Your task to perform on an android device: turn off smart reply in the gmail app Image 0: 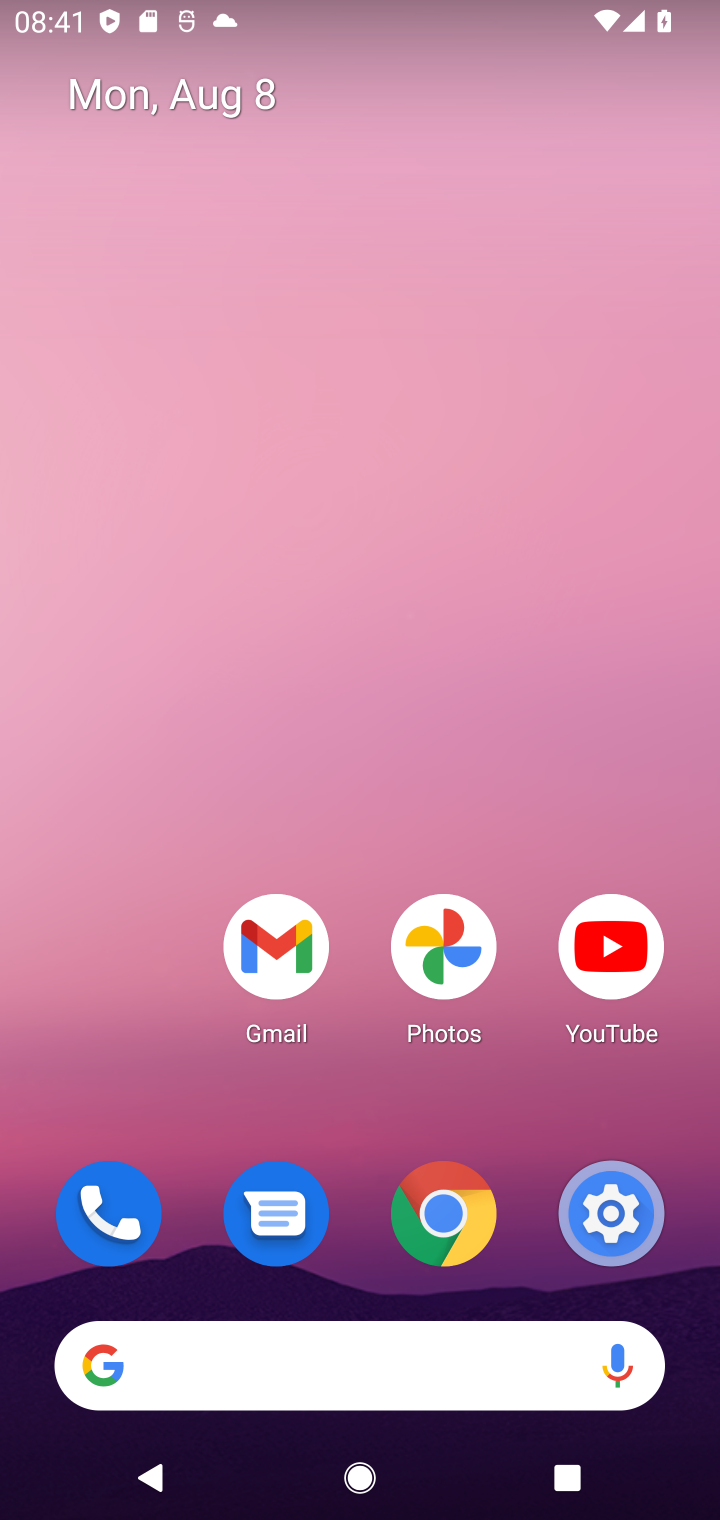
Step 0: drag from (369, 398) to (149, 200)
Your task to perform on an android device: turn off smart reply in the gmail app Image 1: 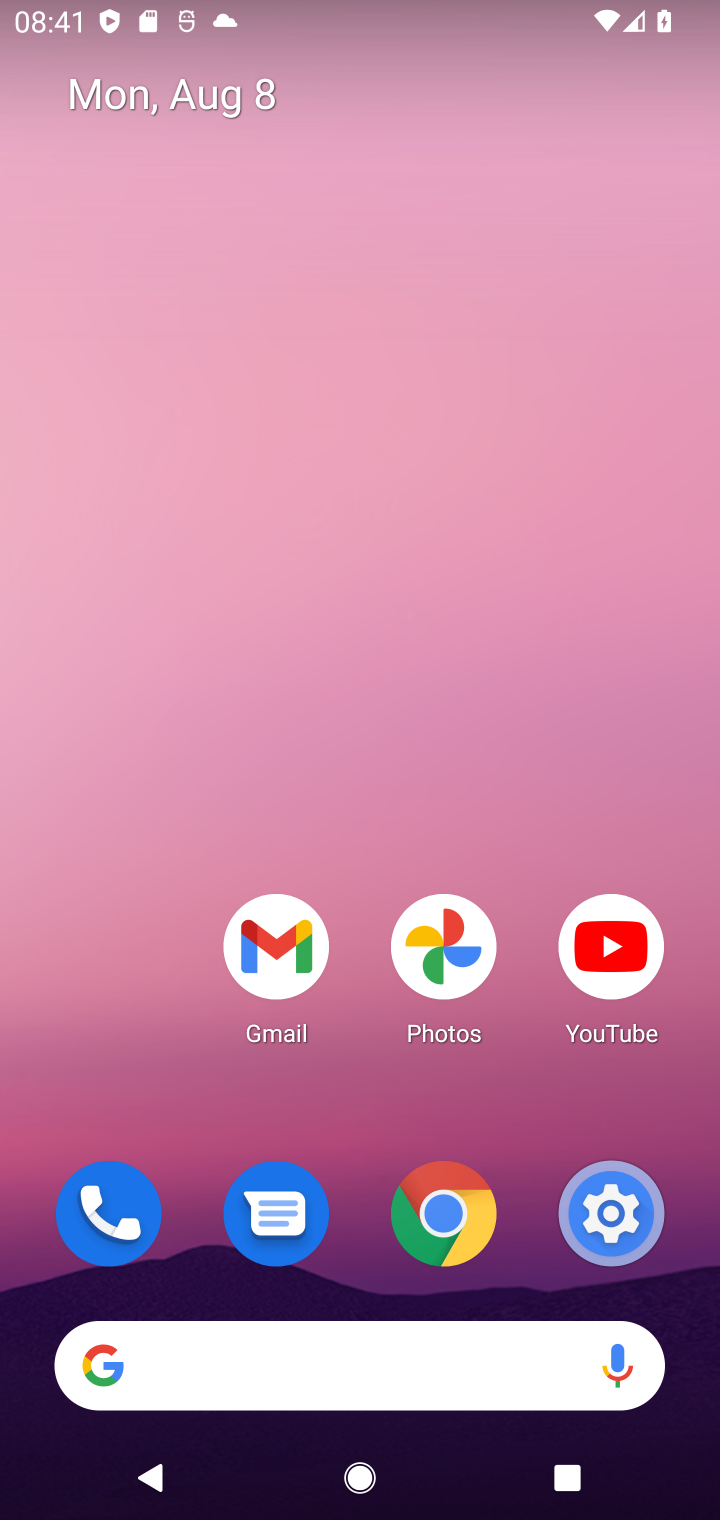
Step 1: drag from (390, 1116) to (361, 207)
Your task to perform on an android device: turn off smart reply in the gmail app Image 2: 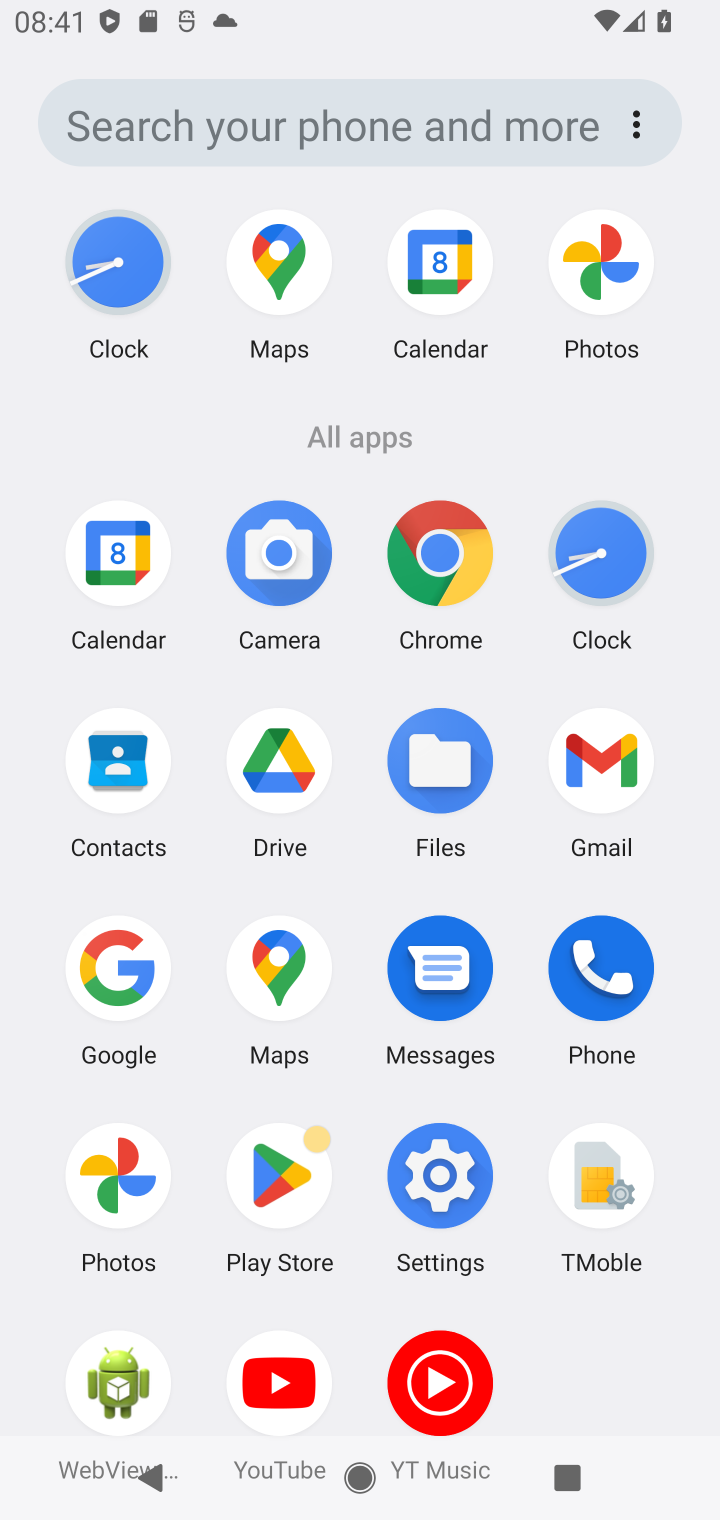
Step 2: click (586, 783)
Your task to perform on an android device: turn off smart reply in the gmail app Image 3: 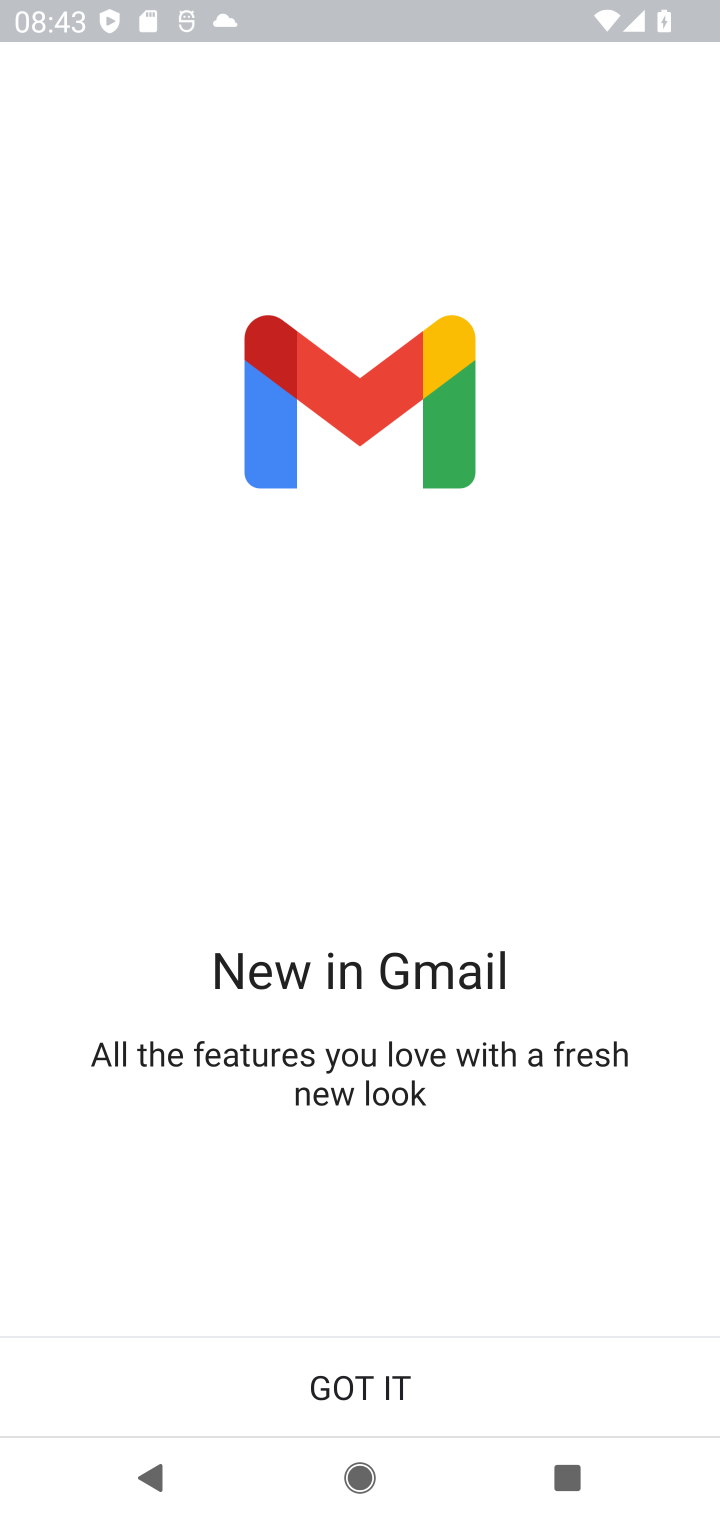
Step 3: click (401, 1418)
Your task to perform on an android device: turn off smart reply in the gmail app Image 4: 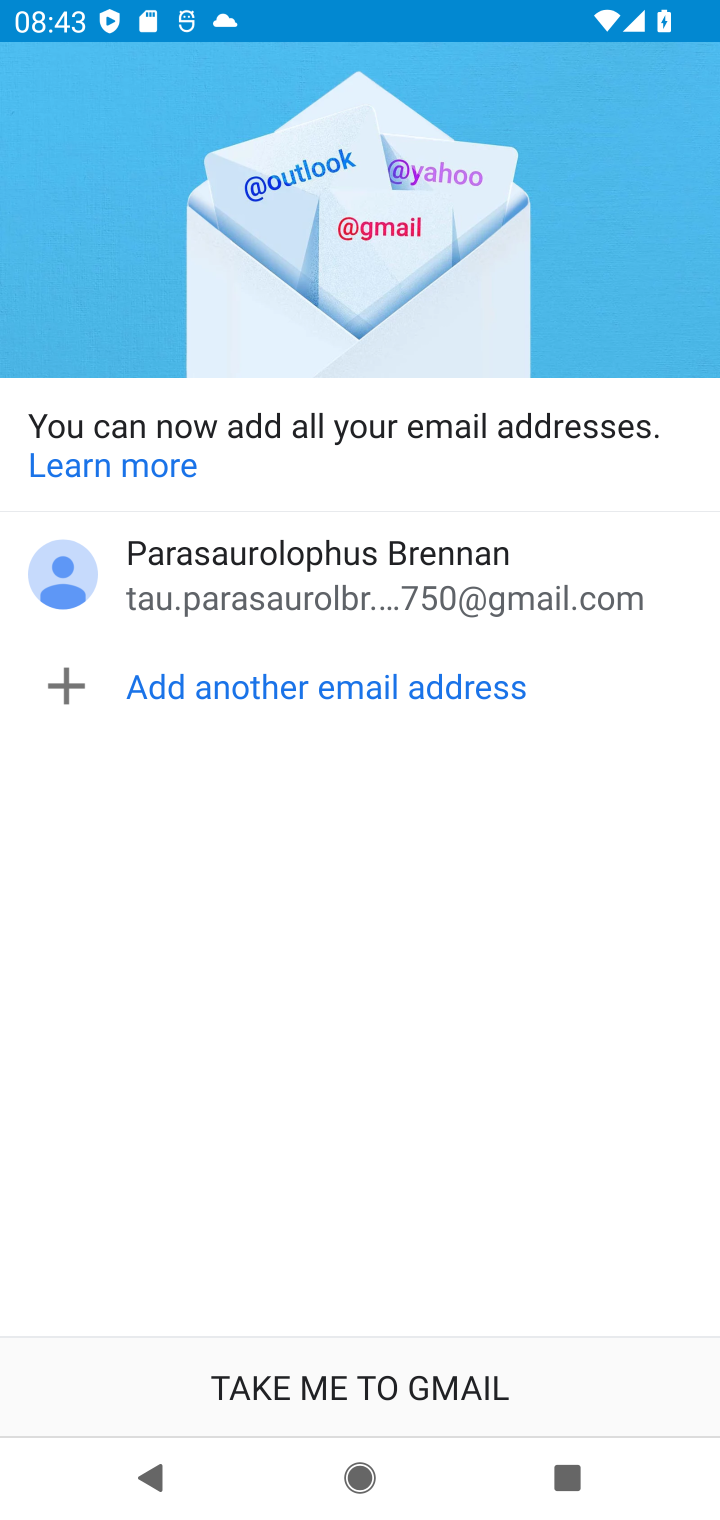
Step 4: click (434, 1380)
Your task to perform on an android device: turn off smart reply in the gmail app Image 5: 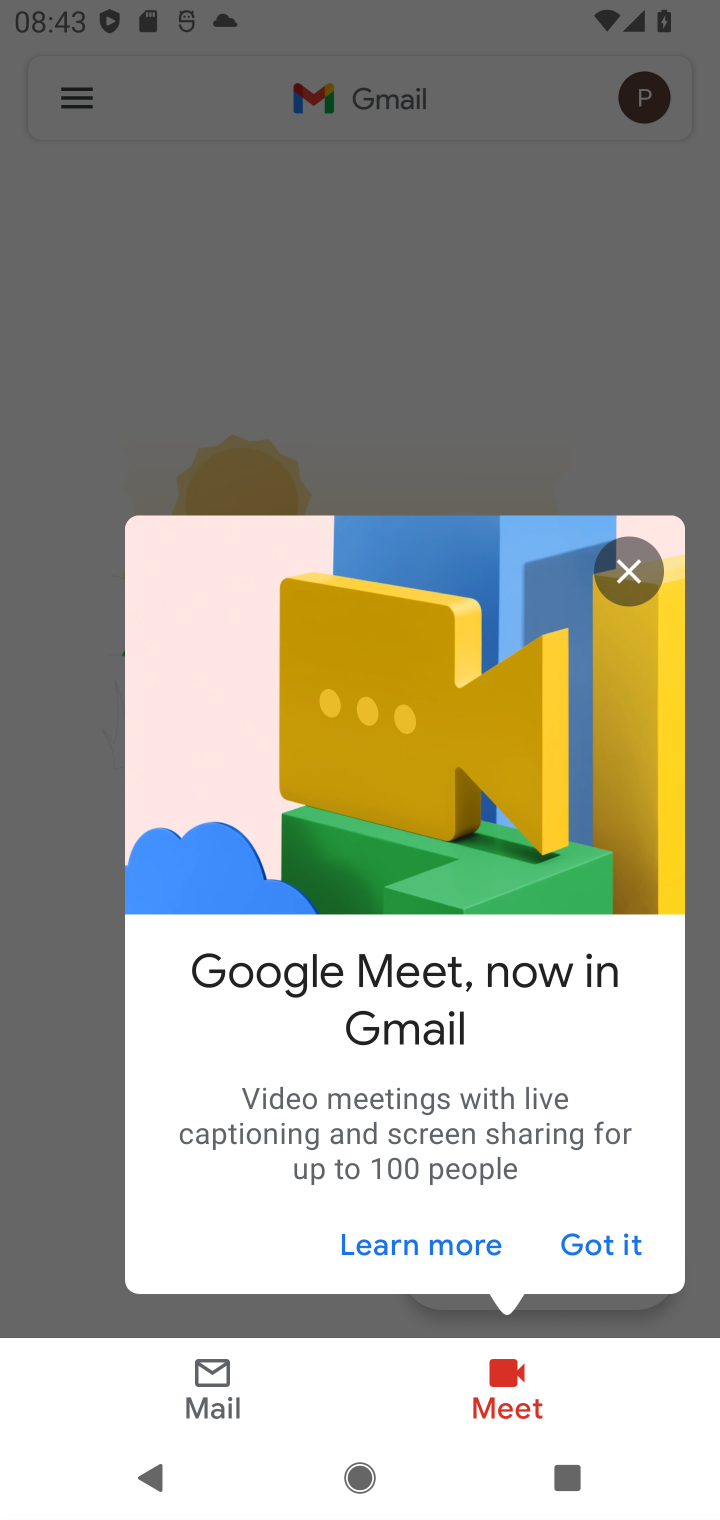
Step 5: click (583, 1243)
Your task to perform on an android device: turn off smart reply in the gmail app Image 6: 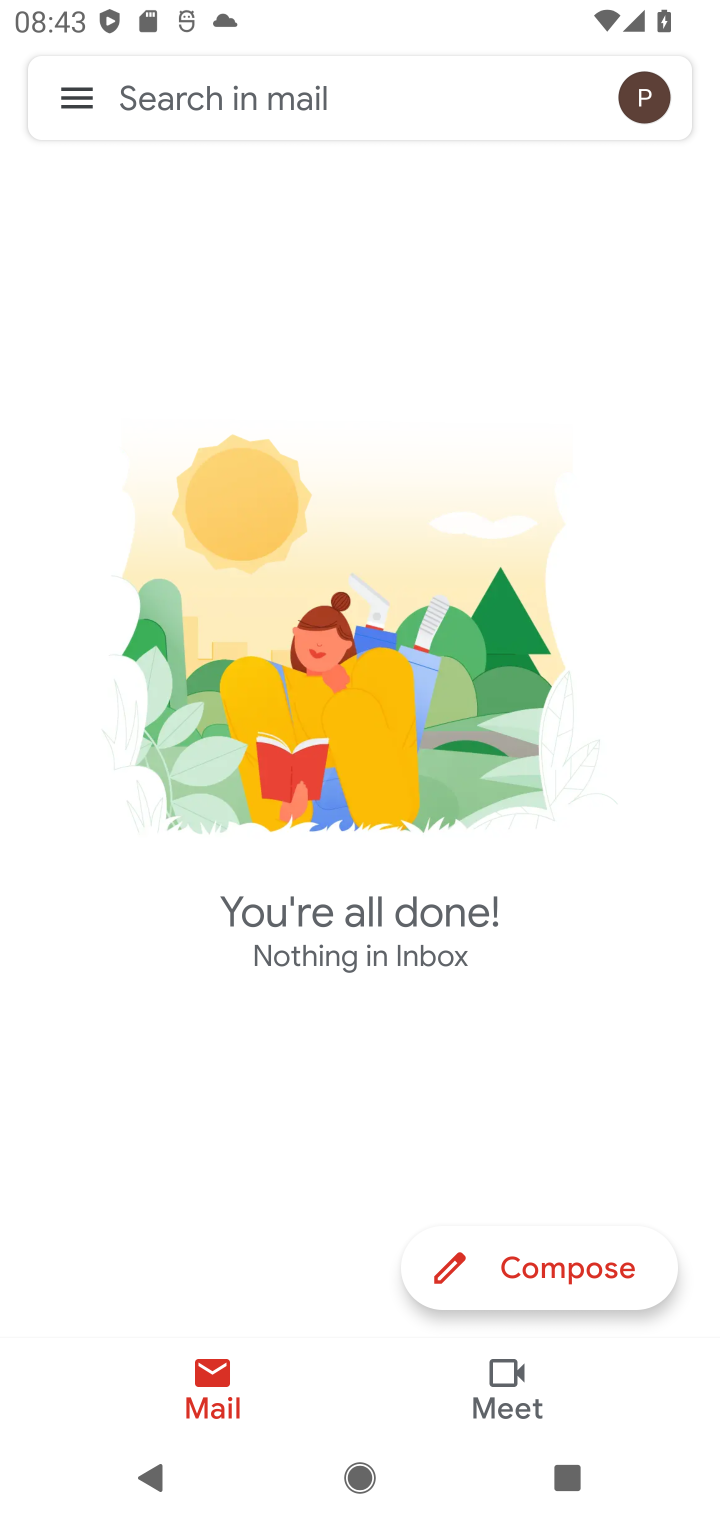
Step 6: click (61, 125)
Your task to perform on an android device: turn off smart reply in the gmail app Image 7: 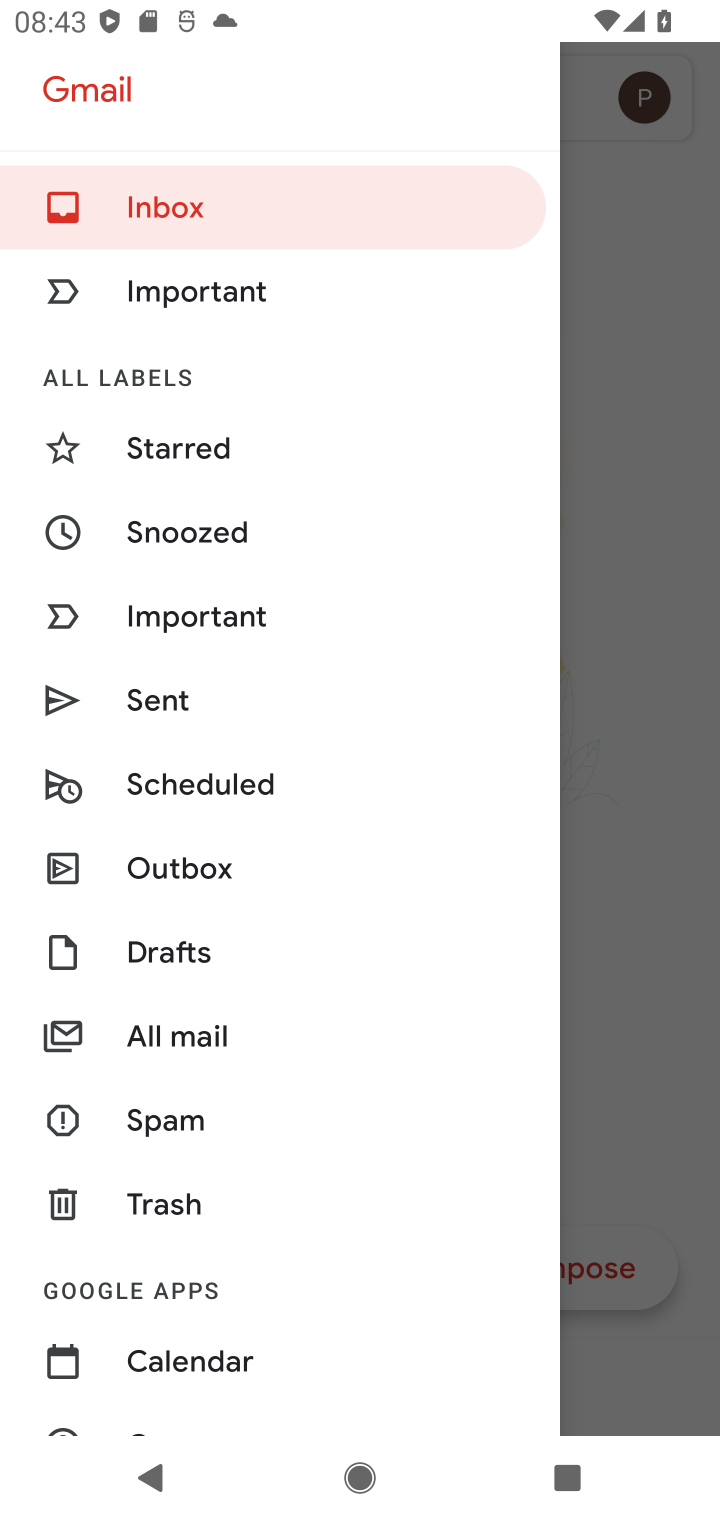
Step 7: drag from (226, 1276) to (256, 357)
Your task to perform on an android device: turn off smart reply in the gmail app Image 8: 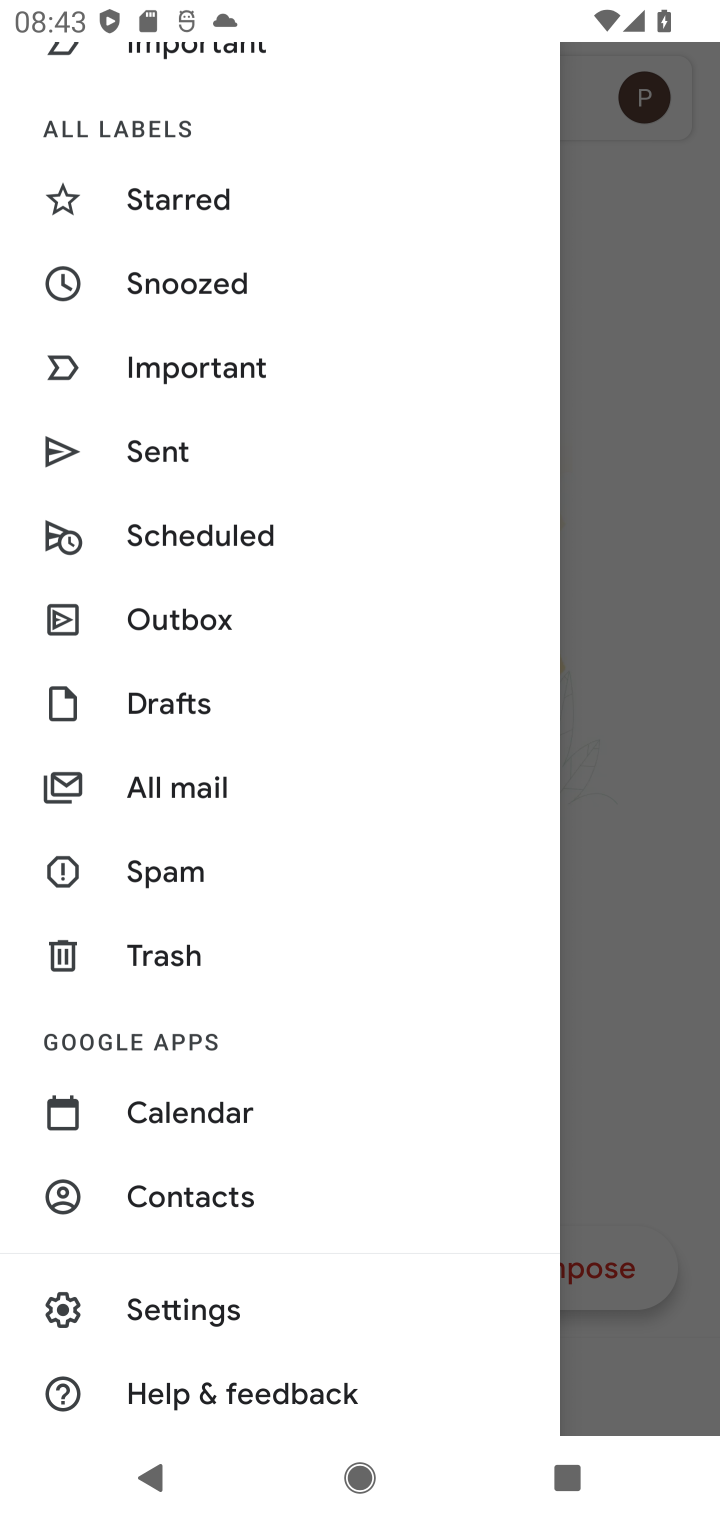
Step 8: click (219, 1308)
Your task to perform on an android device: turn off smart reply in the gmail app Image 9: 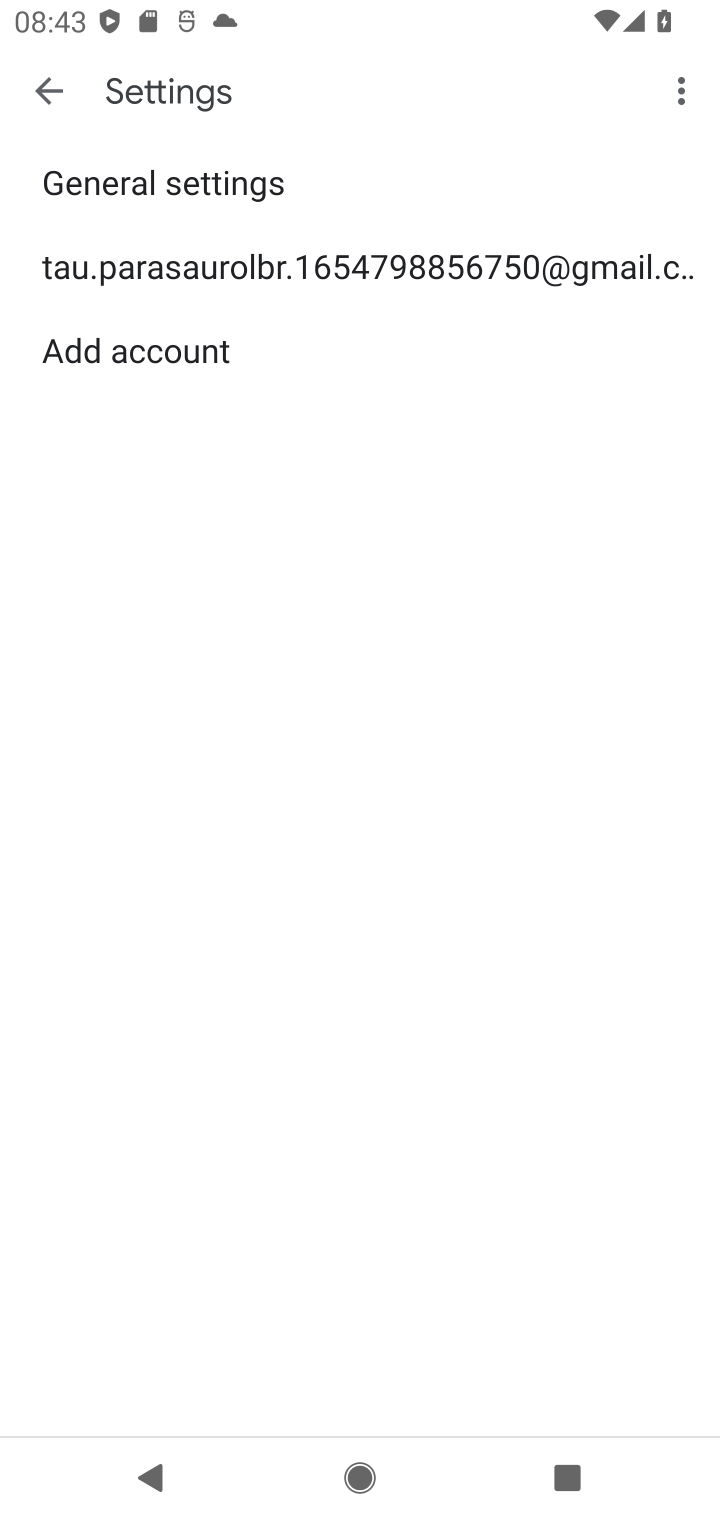
Step 9: click (490, 269)
Your task to perform on an android device: turn off smart reply in the gmail app Image 10: 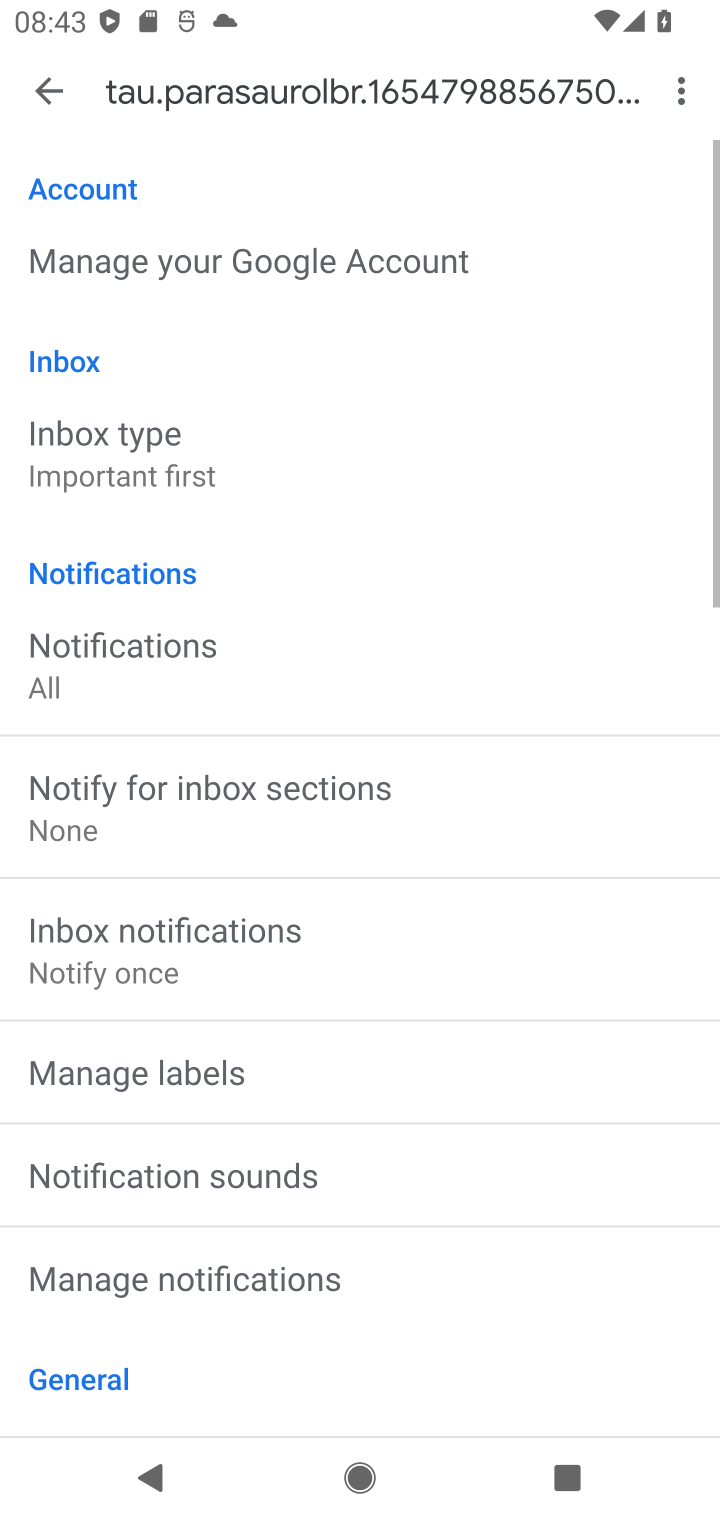
Step 10: drag from (278, 1253) to (424, 275)
Your task to perform on an android device: turn off smart reply in the gmail app Image 11: 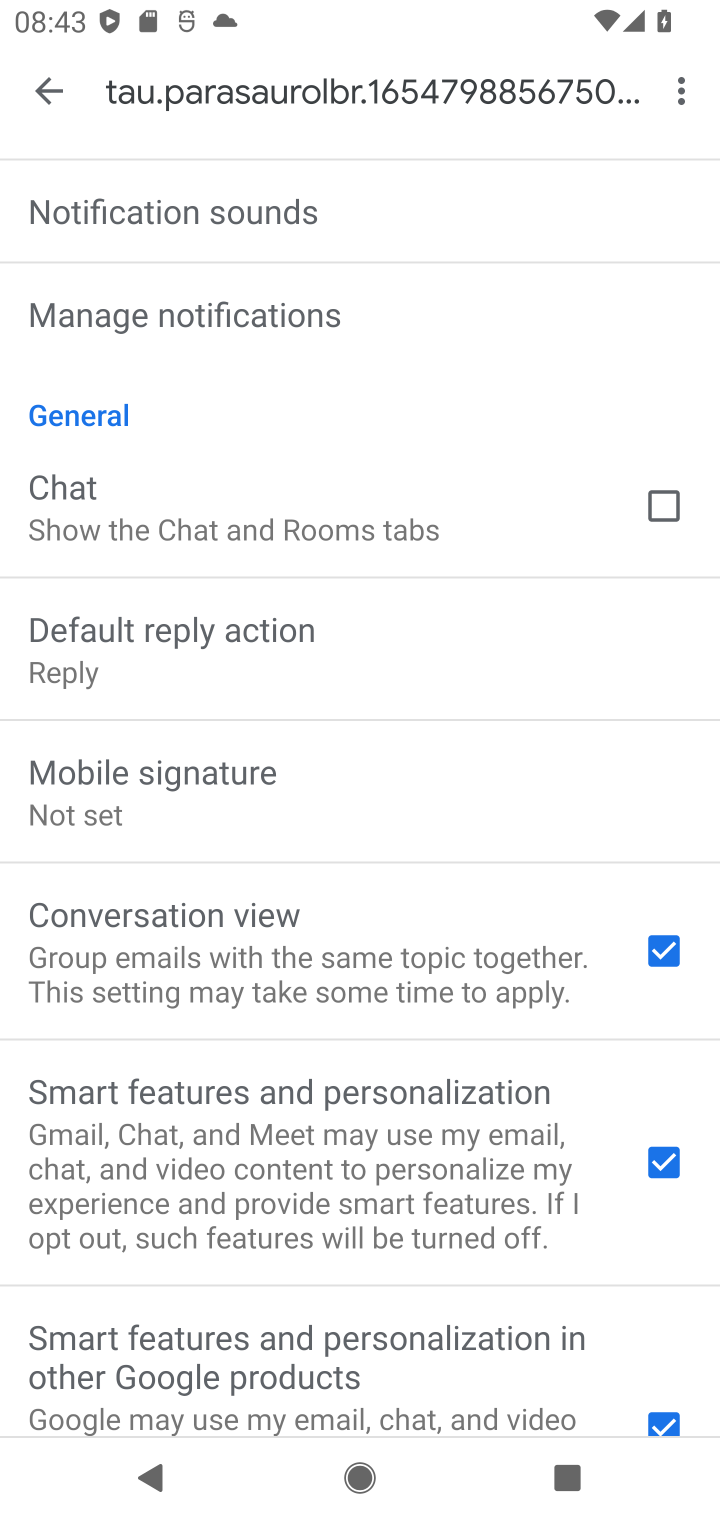
Step 11: drag from (375, 999) to (447, 14)
Your task to perform on an android device: turn off smart reply in the gmail app Image 12: 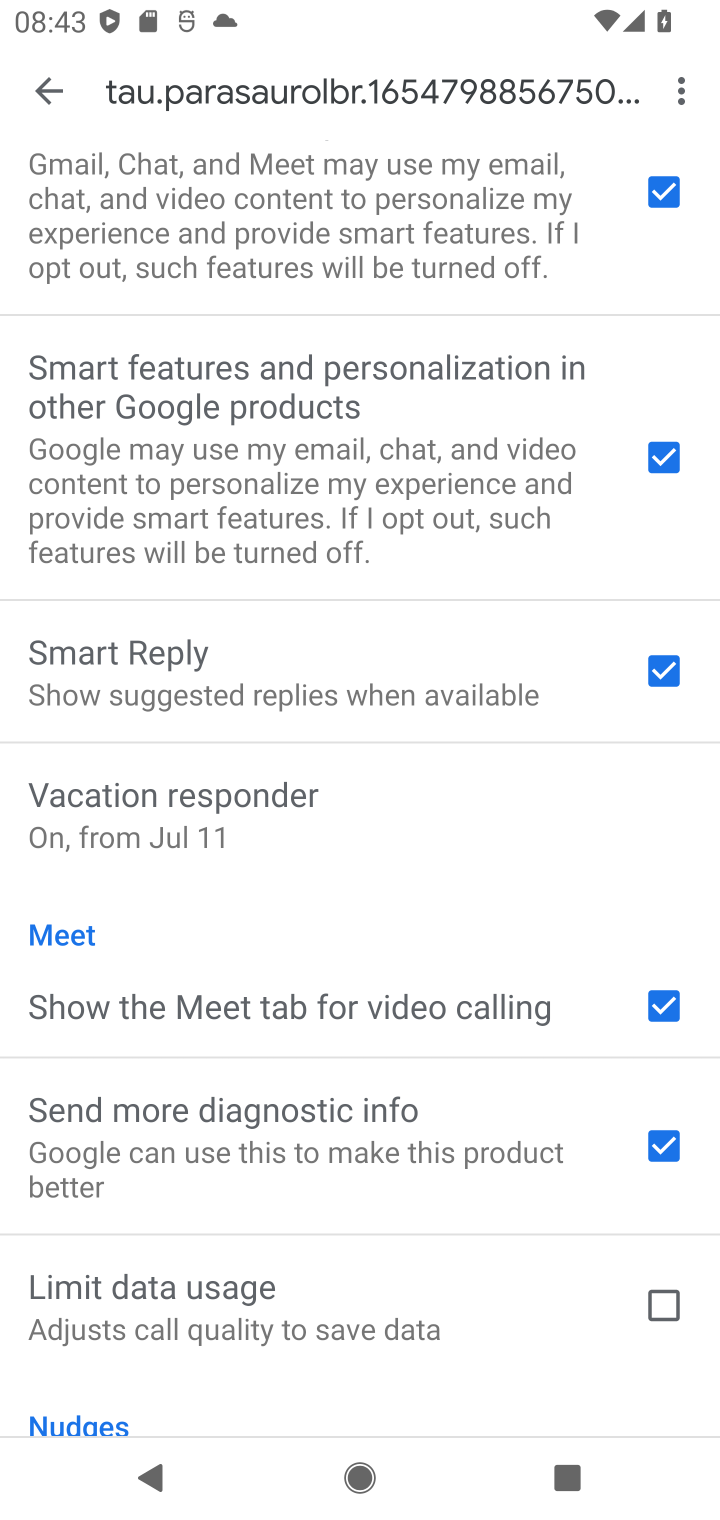
Step 12: click (677, 679)
Your task to perform on an android device: turn off smart reply in the gmail app Image 13: 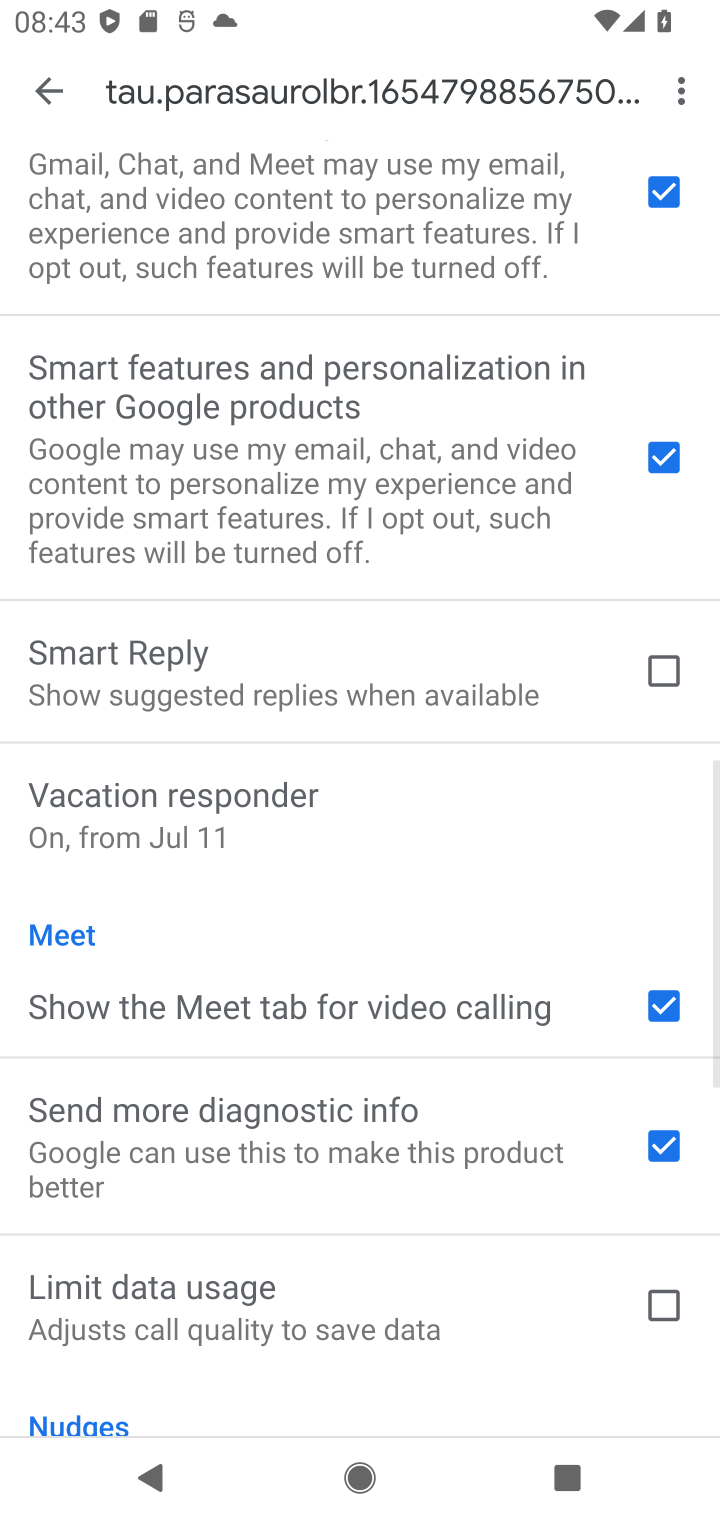
Step 13: task complete